Your task to perform on an android device: turn off javascript in the chrome app Image 0: 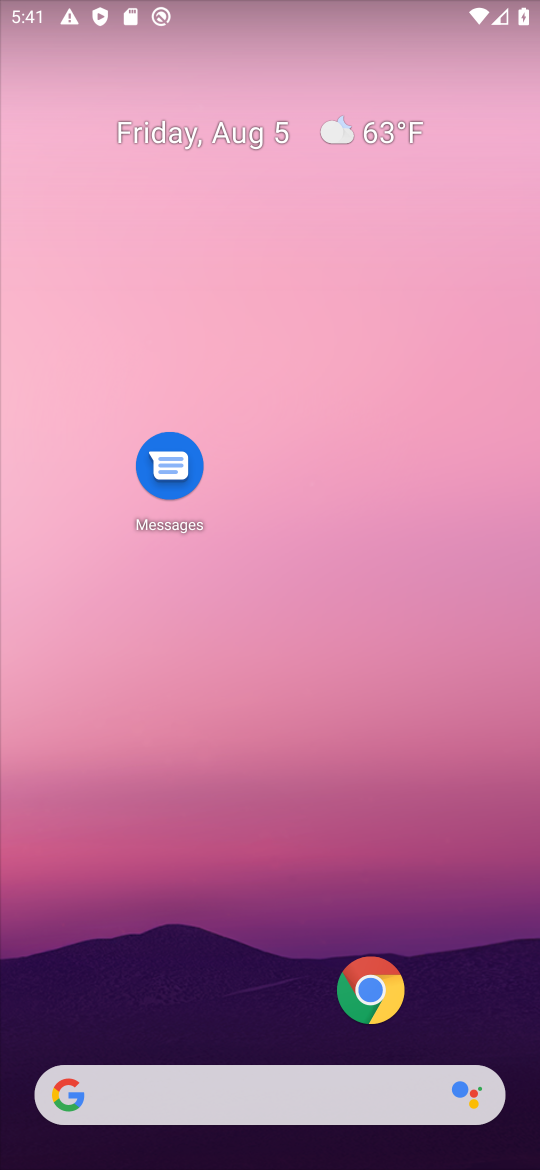
Step 0: click (375, 999)
Your task to perform on an android device: turn off javascript in the chrome app Image 1: 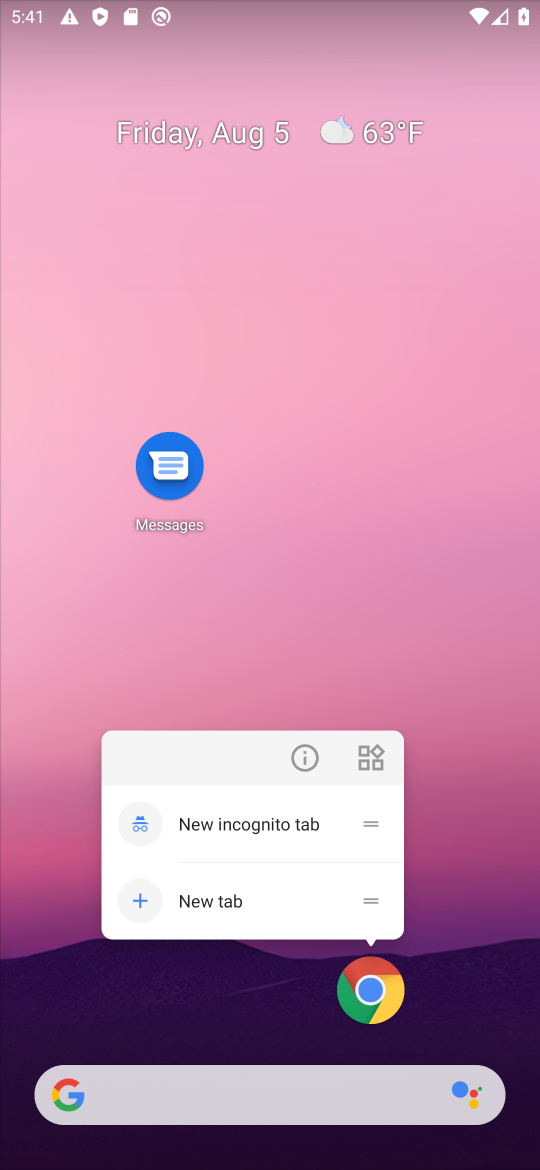
Step 1: click (373, 999)
Your task to perform on an android device: turn off javascript in the chrome app Image 2: 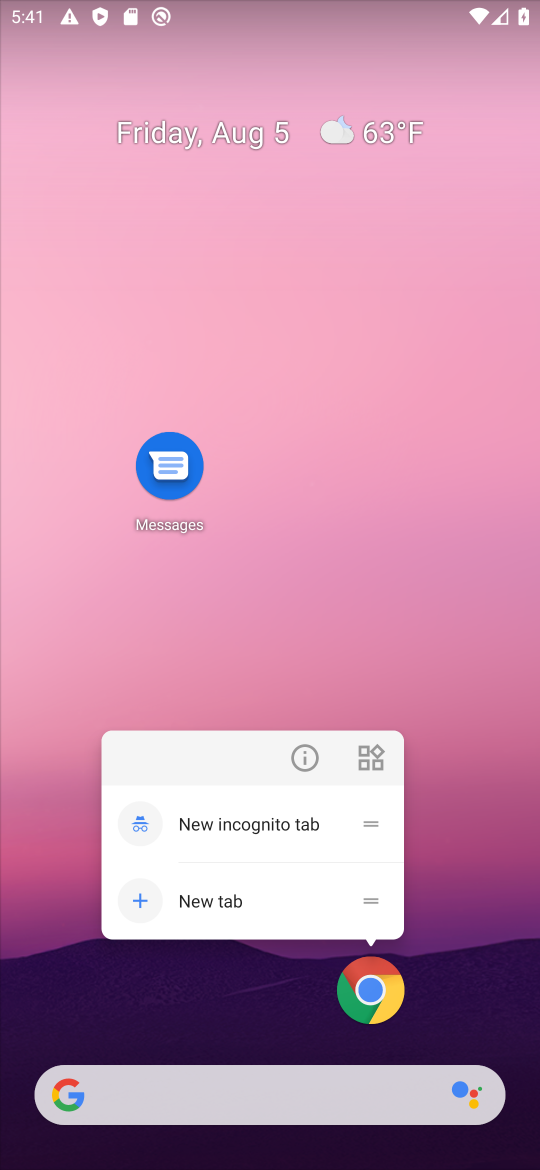
Step 2: click (371, 978)
Your task to perform on an android device: turn off javascript in the chrome app Image 3: 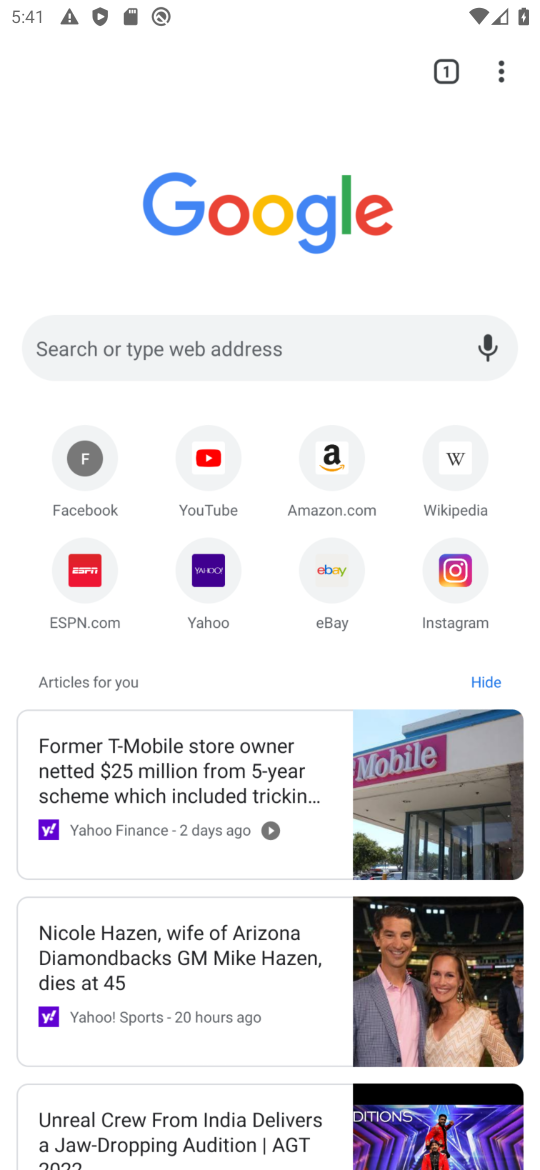
Step 3: drag from (364, 992) to (416, 992)
Your task to perform on an android device: turn off javascript in the chrome app Image 4: 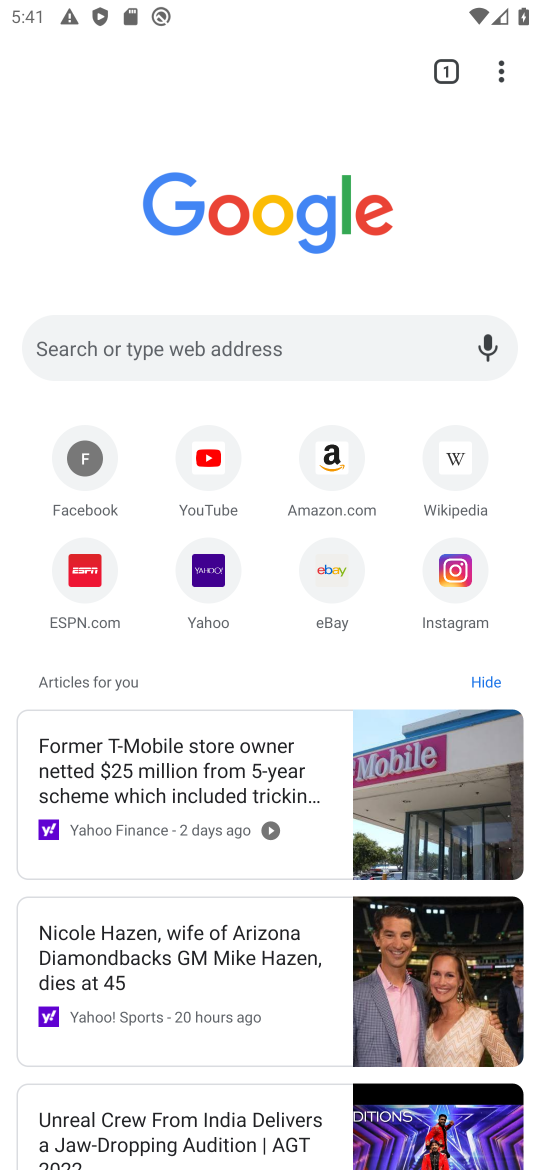
Step 4: click (498, 76)
Your task to perform on an android device: turn off javascript in the chrome app Image 5: 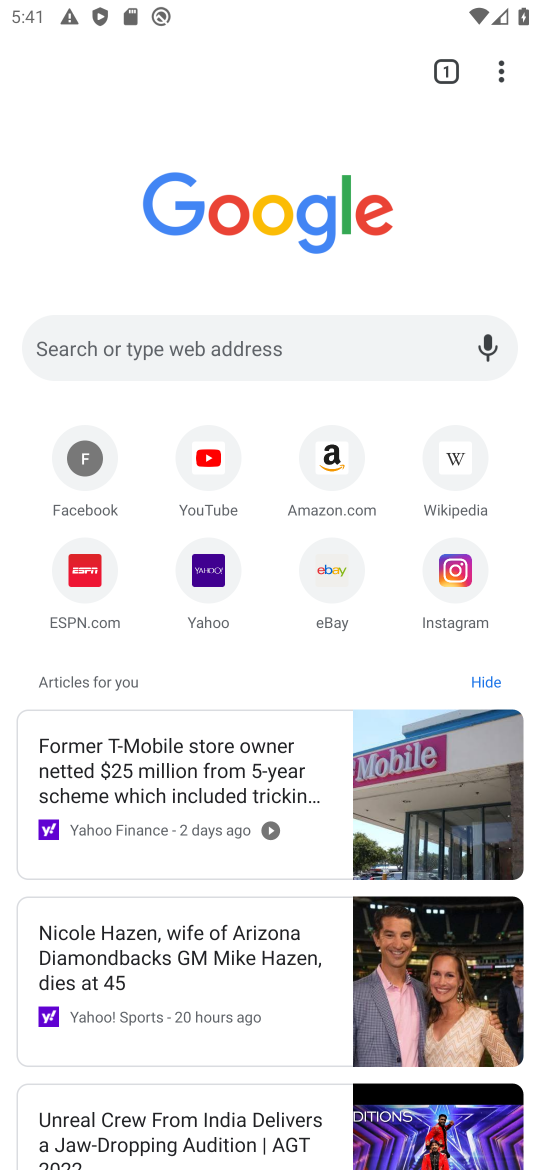
Step 5: click (496, 72)
Your task to perform on an android device: turn off javascript in the chrome app Image 6: 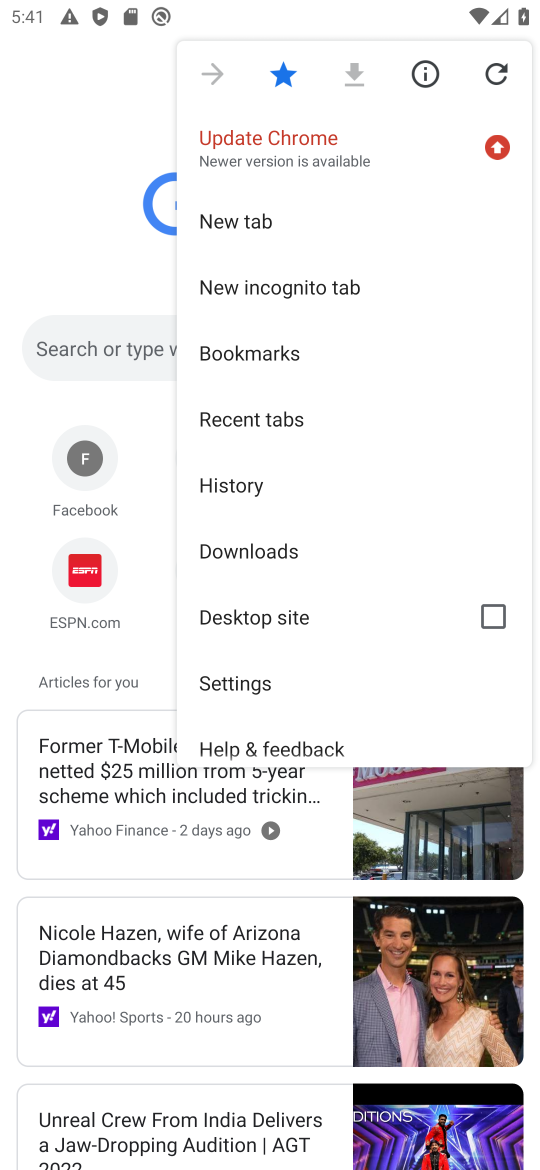
Step 6: click (269, 670)
Your task to perform on an android device: turn off javascript in the chrome app Image 7: 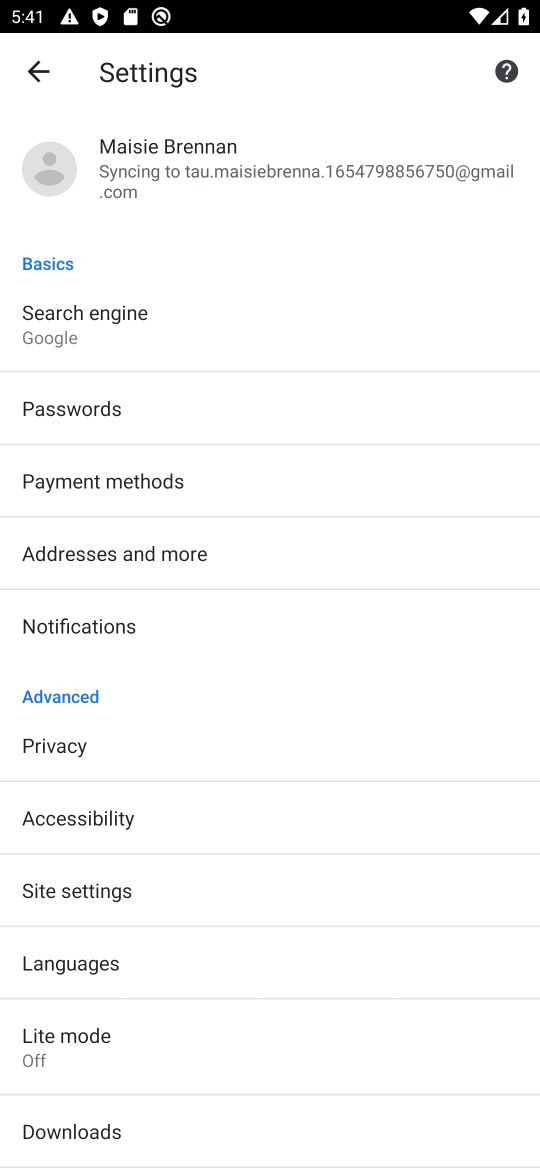
Step 7: click (91, 891)
Your task to perform on an android device: turn off javascript in the chrome app Image 8: 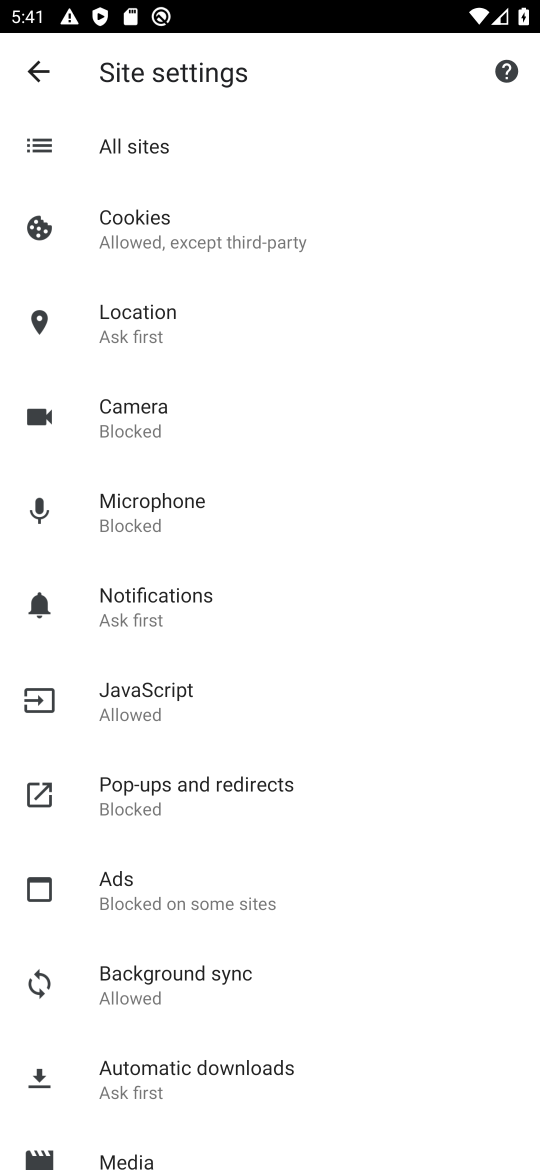
Step 8: click (155, 715)
Your task to perform on an android device: turn off javascript in the chrome app Image 9: 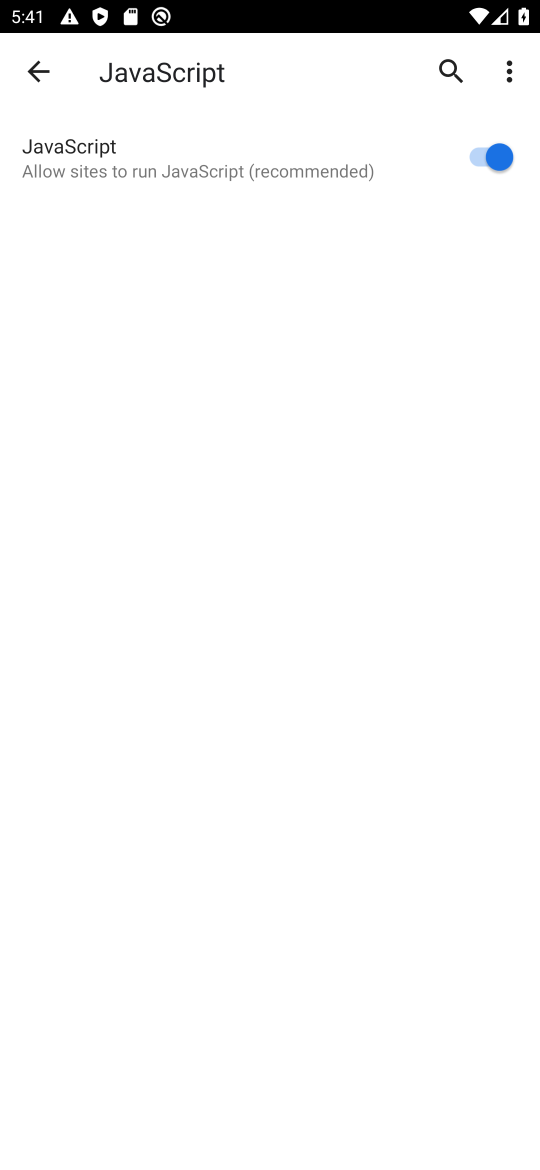
Step 9: click (481, 159)
Your task to perform on an android device: turn off javascript in the chrome app Image 10: 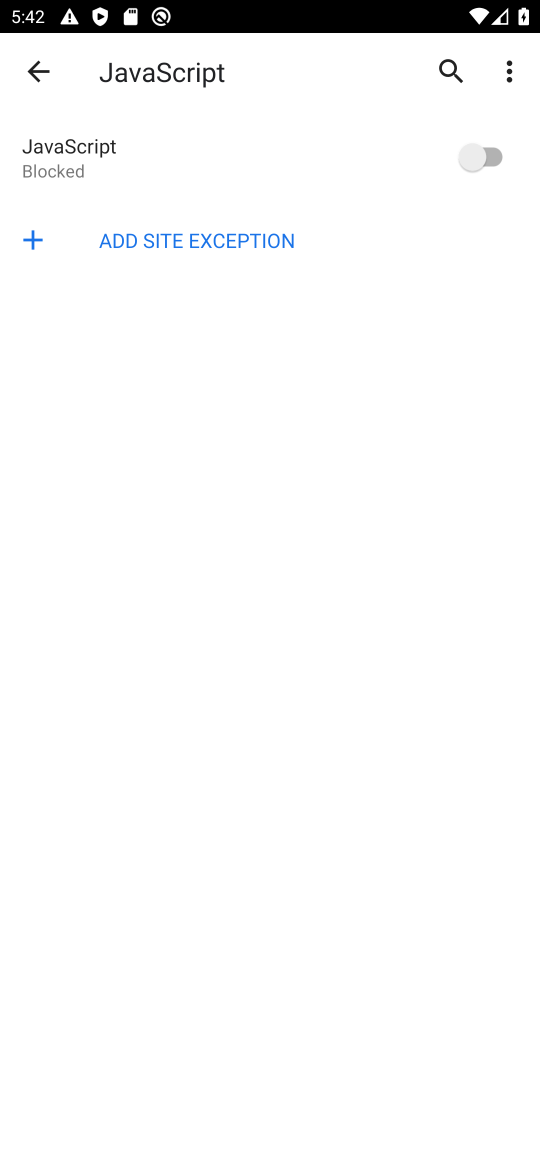
Step 10: task complete